Your task to perform on an android device: all mails in gmail Image 0: 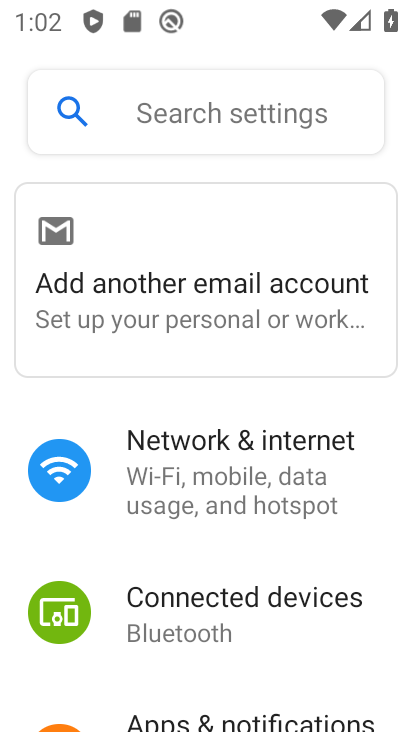
Step 0: press home button
Your task to perform on an android device: all mails in gmail Image 1: 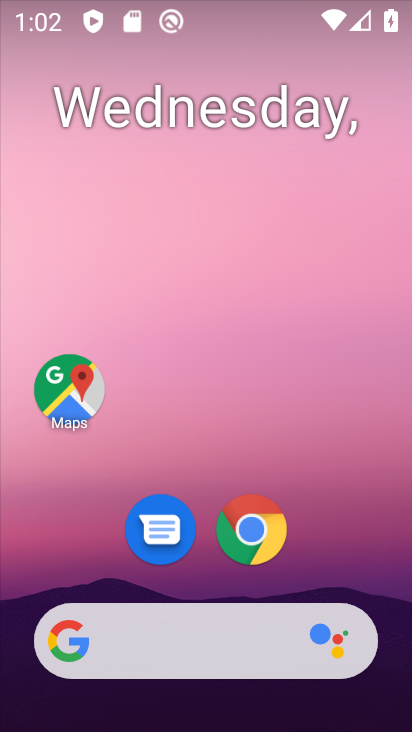
Step 1: drag from (203, 546) to (194, 14)
Your task to perform on an android device: all mails in gmail Image 2: 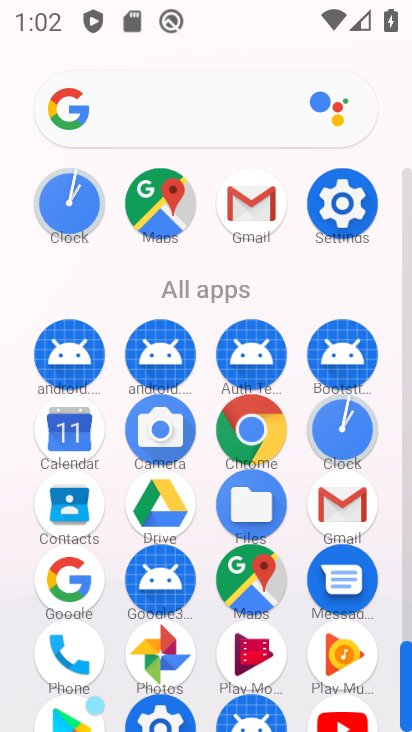
Step 2: click (259, 208)
Your task to perform on an android device: all mails in gmail Image 3: 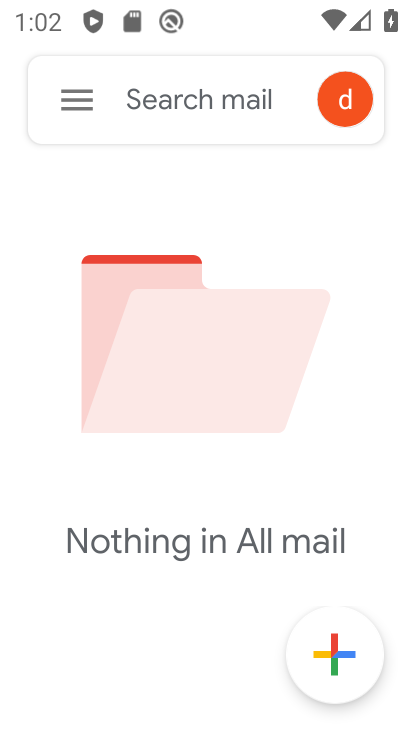
Step 3: task complete